Your task to perform on an android device: Open calendar and show me the first week of next month Image 0: 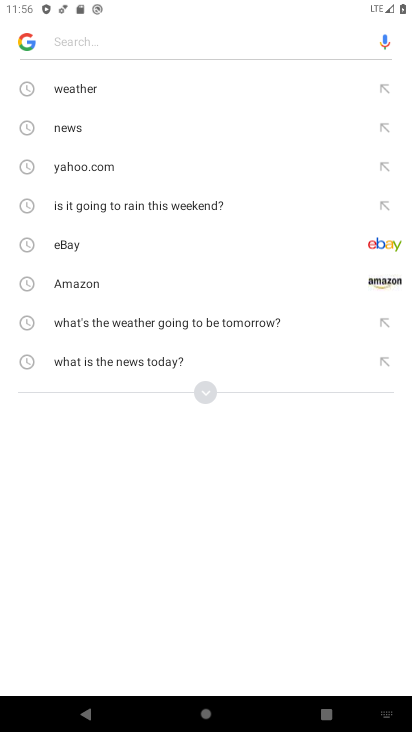
Step 0: press home button
Your task to perform on an android device: Open calendar and show me the first week of next month Image 1: 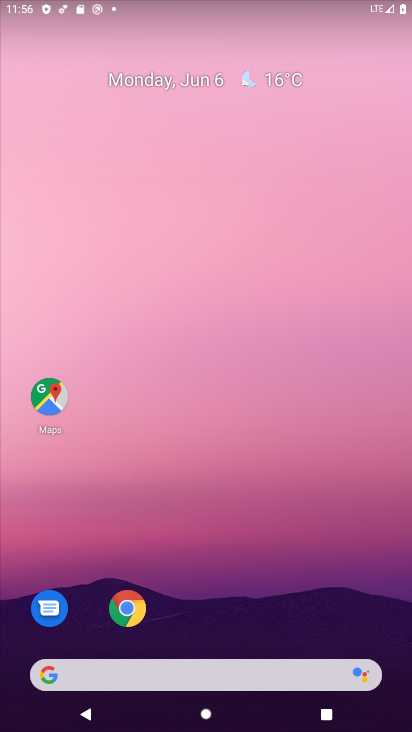
Step 1: drag from (228, 629) to (232, 77)
Your task to perform on an android device: Open calendar and show me the first week of next month Image 2: 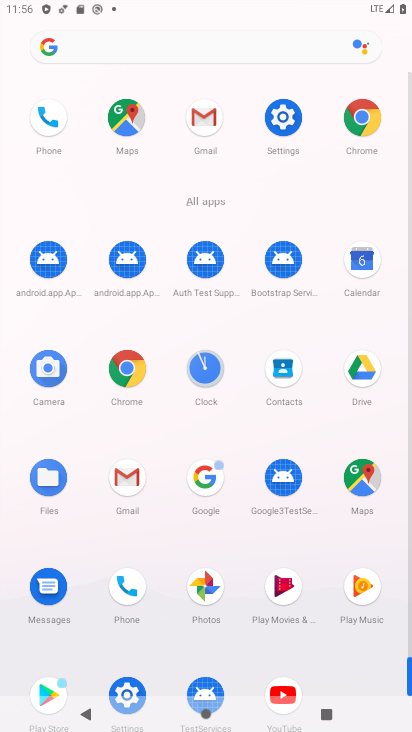
Step 2: click (355, 271)
Your task to perform on an android device: Open calendar and show me the first week of next month Image 3: 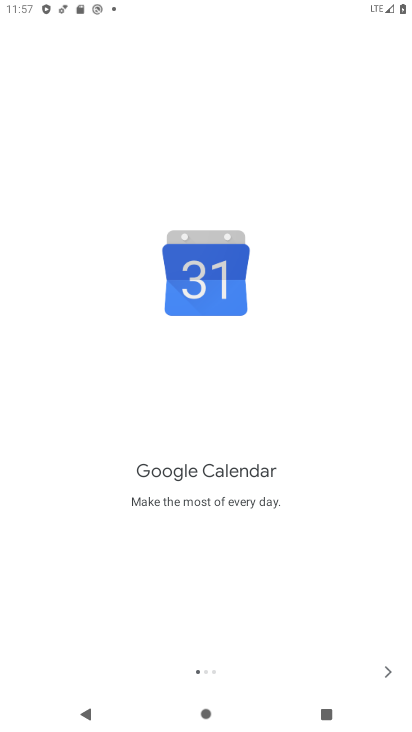
Step 3: click (395, 670)
Your task to perform on an android device: Open calendar and show me the first week of next month Image 4: 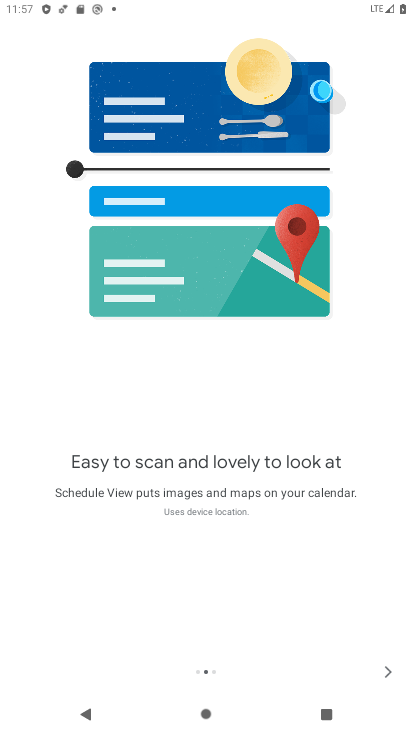
Step 4: click (395, 670)
Your task to perform on an android device: Open calendar and show me the first week of next month Image 5: 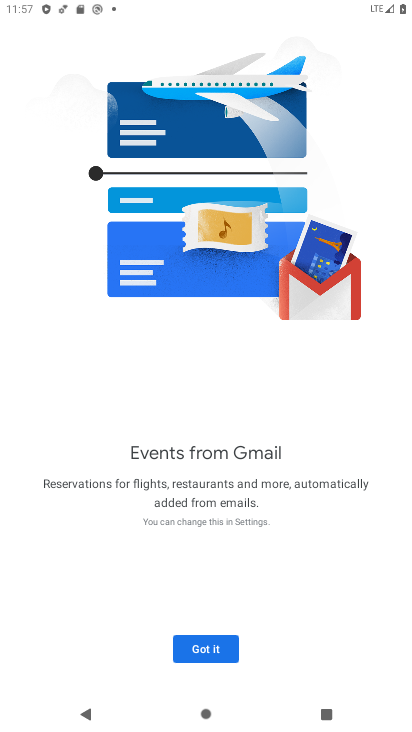
Step 5: click (206, 644)
Your task to perform on an android device: Open calendar and show me the first week of next month Image 6: 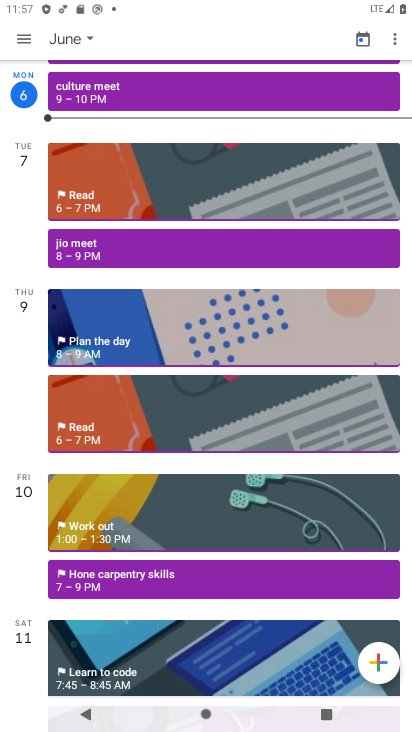
Step 6: click (77, 46)
Your task to perform on an android device: Open calendar and show me the first week of next month Image 7: 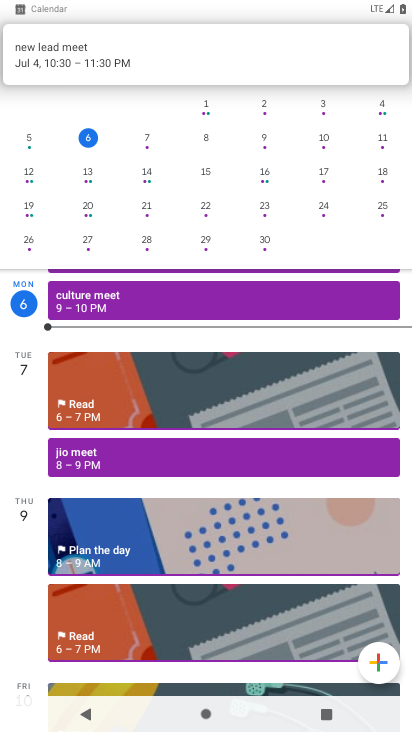
Step 7: task complete